Your task to perform on an android device: Go to privacy settings Image 0: 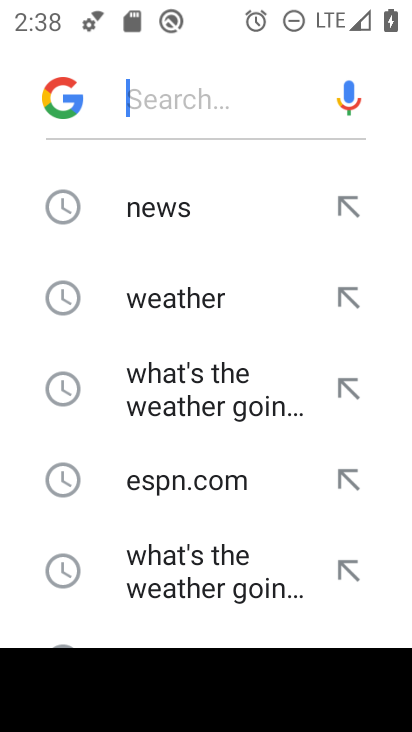
Step 0: press home button
Your task to perform on an android device: Go to privacy settings Image 1: 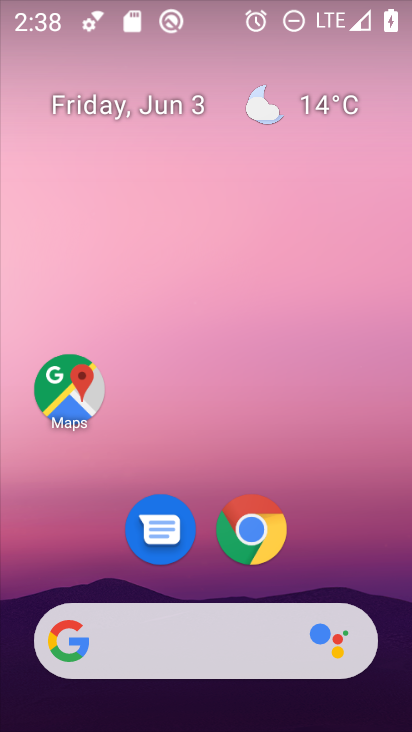
Step 1: drag from (376, 561) to (377, 228)
Your task to perform on an android device: Go to privacy settings Image 2: 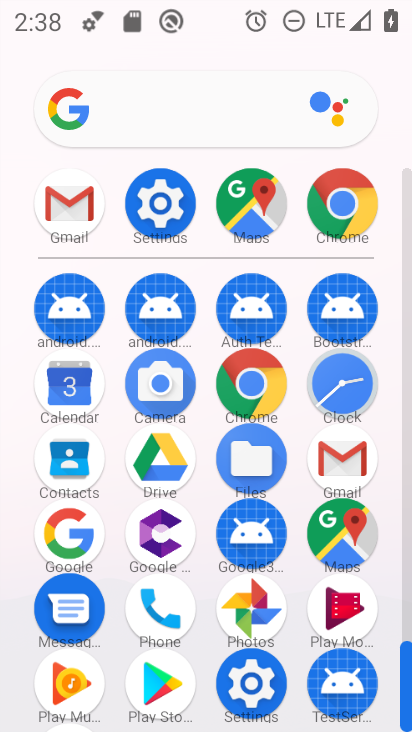
Step 2: click (171, 222)
Your task to perform on an android device: Go to privacy settings Image 3: 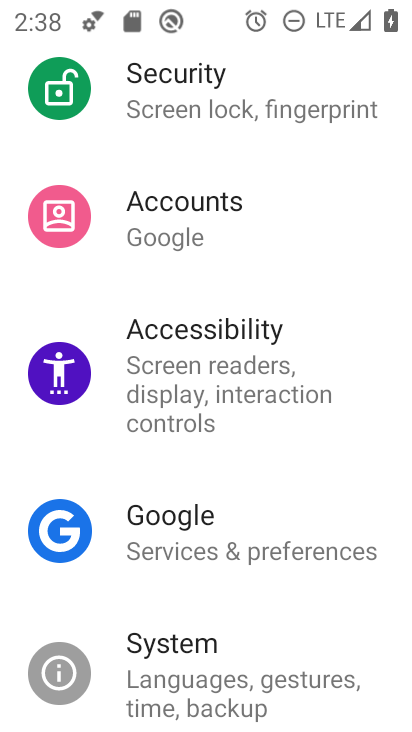
Step 3: drag from (360, 335) to (361, 397)
Your task to perform on an android device: Go to privacy settings Image 4: 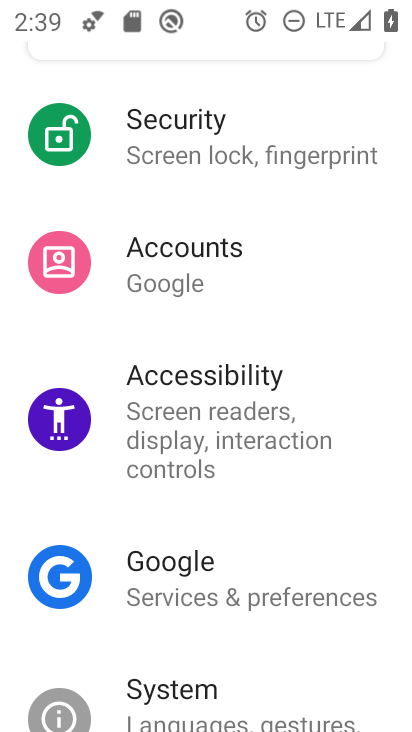
Step 4: drag from (351, 316) to (361, 377)
Your task to perform on an android device: Go to privacy settings Image 5: 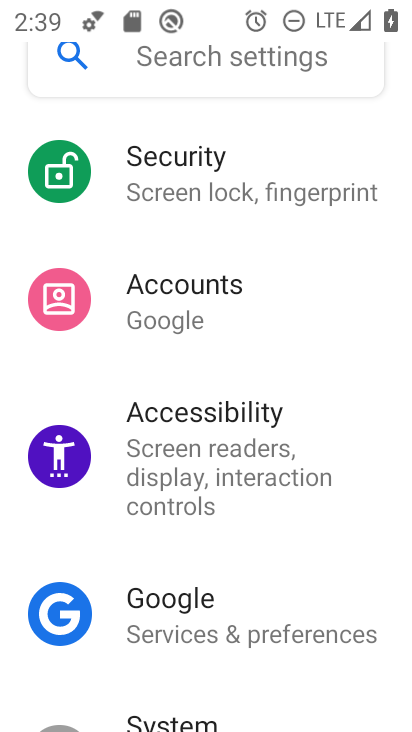
Step 5: drag from (369, 302) to (379, 376)
Your task to perform on an android device: Go to privacy settings Image 6: 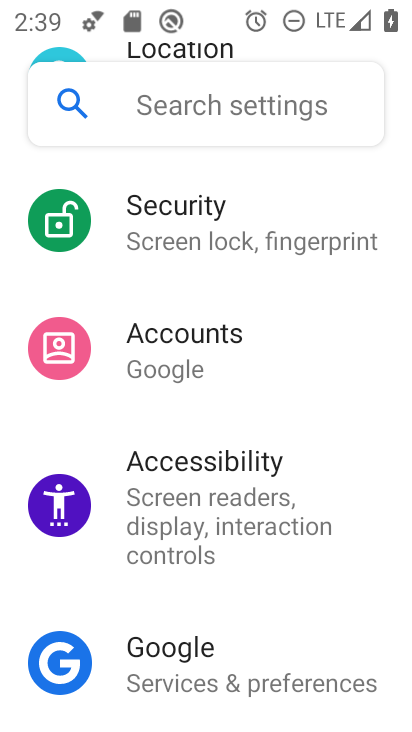
Step 6: drag from (365, 294) to (348, 390)
Your task to perform on an android device: Go to privacy settings Image 7: 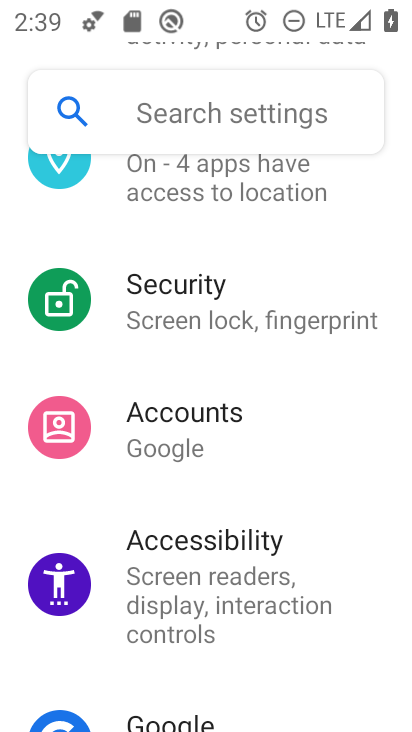
Step 7: drag from (346, 262) to (352, 381)
Your task to perform on an android device: Go to privacy settings Image 8: 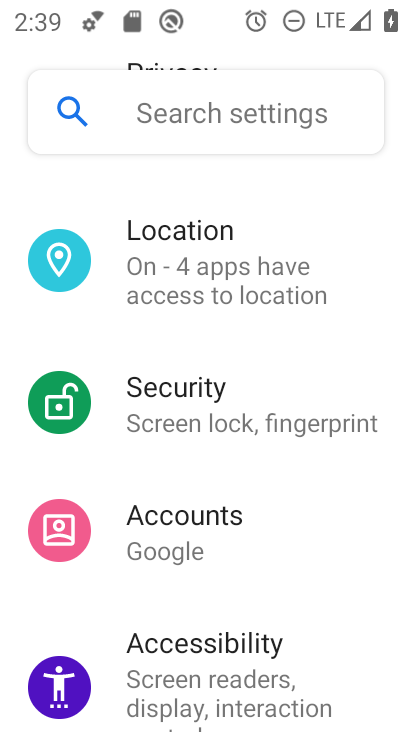
Step 8: drag from (349, 250) to (351, 355)
Your task to perform on an android device: Go to privacy settings Image 9: 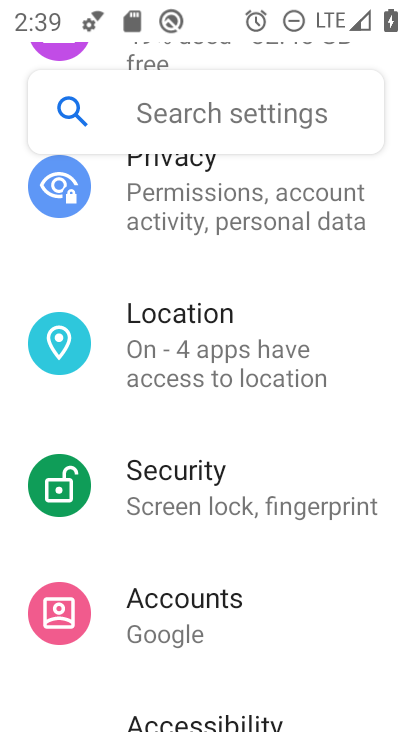
Step 9: drag from (373, 248) to (370, 377)
Your task to perform on an android device: Go to privacy settings Image 10: 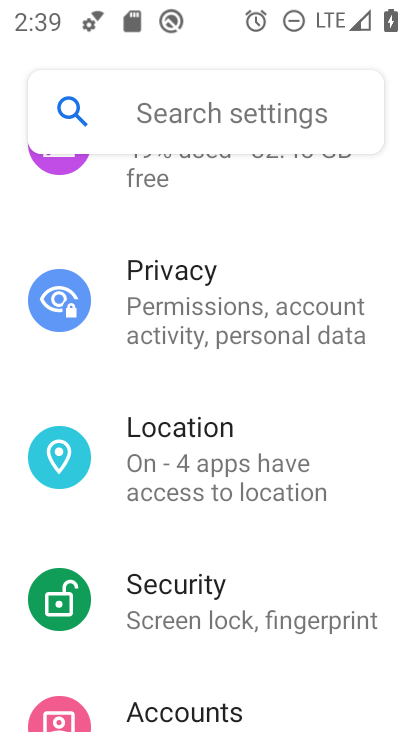
Step 10: drag from (372, 251) to (370, 416)
Your task to perform on an android device: Go to privacy settings Image 11: 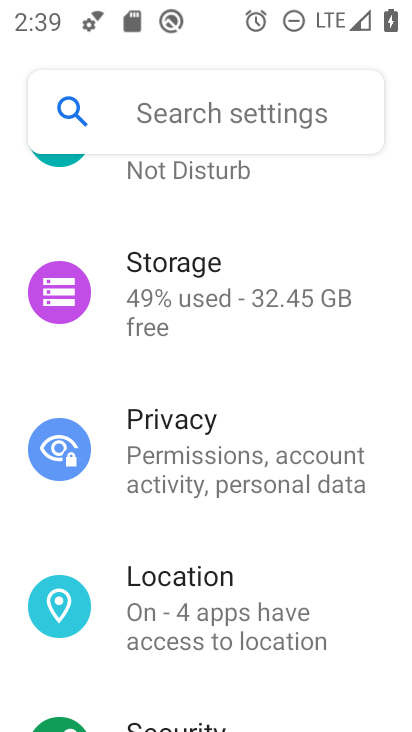
Step 11: drag from (374, 239) to (371, 398)
Your task to perform on an android device: Go to privacy settings Image 12: 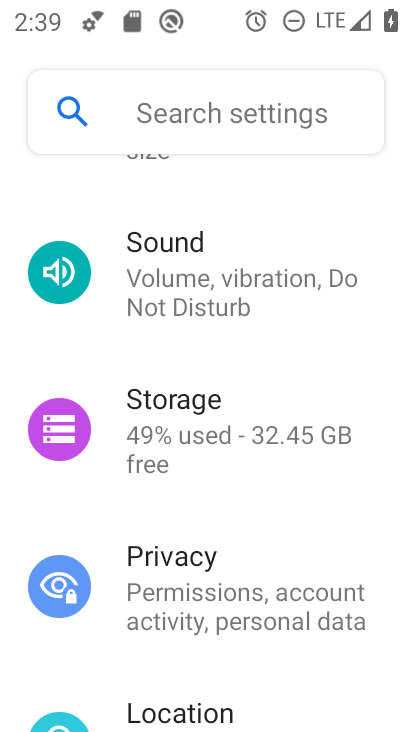
Step 12: click (234, 587)
Your task to perform on an android device: Go to privacy settings Image 13: 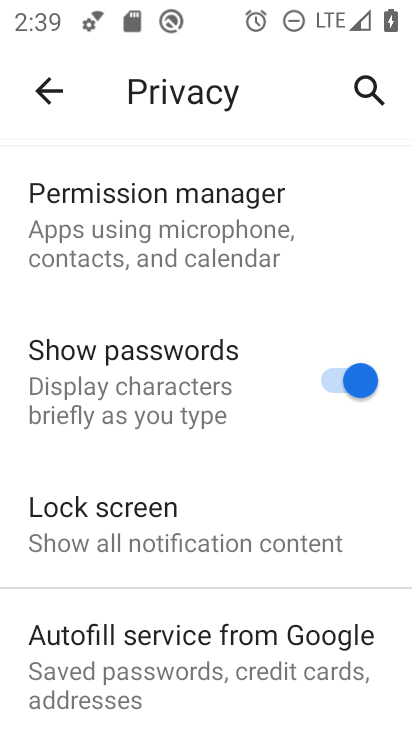
Step 13: task complete